Your task to perform on an android device: move a message to another label in the gmail app Image 0: 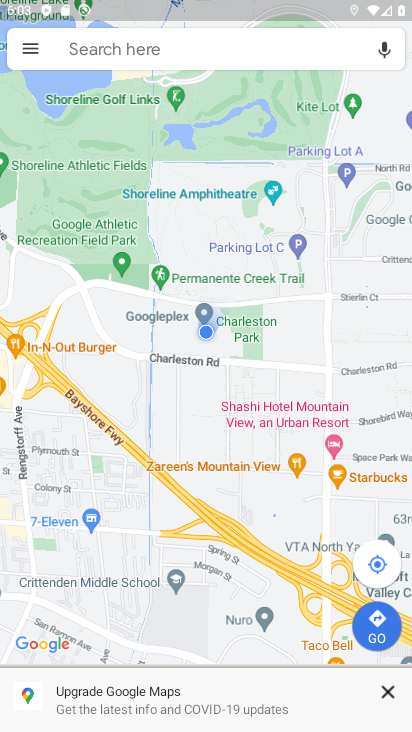
Step 0: press home button
Your task to perform on an android device: move a message to another label in the gmail app Image 1: 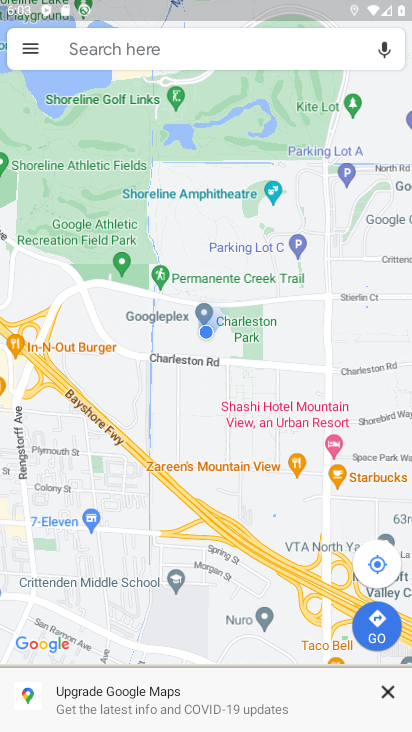
Step 1: press home button
Your task to perform on an android device: move a message to another label in the gmail app Image 2: 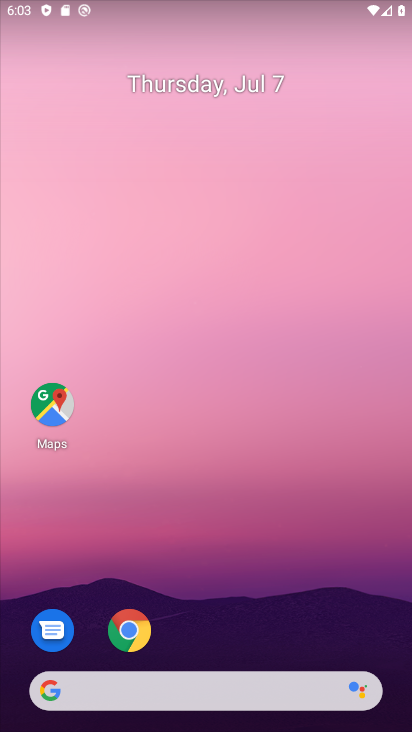
Step 2: drag from (196, 626) to (196, 150)
Your task to perform on an android device: move a message to another label in the gmail app Image 3: 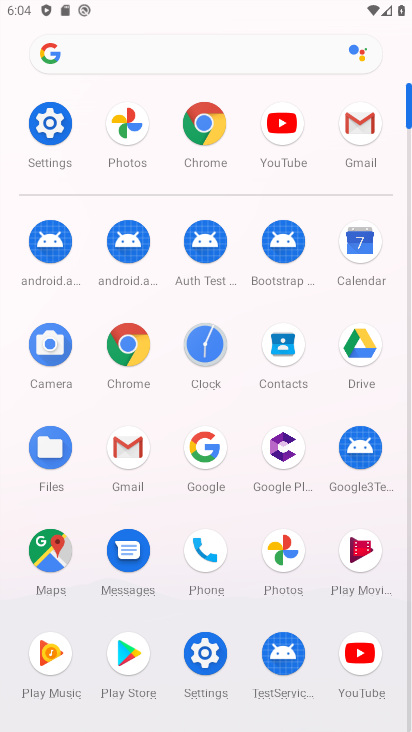
Step 3: click (366, 129)
Your task to perform on an android device: move a message to another label in the gmail app Image 4: 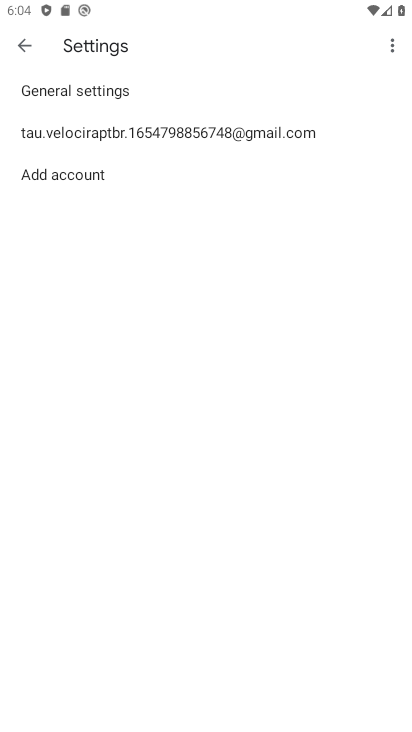
Step 4: click (156, 129)
Your task to perform on an android device: move a message to another label in the gmail app Image 5: 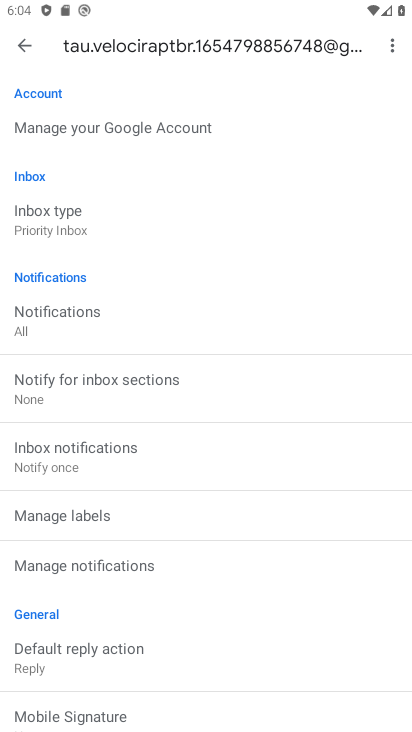
Step 5: press back button
Your task to perform on an android device: move a message to another label in the gmail app Image 6: 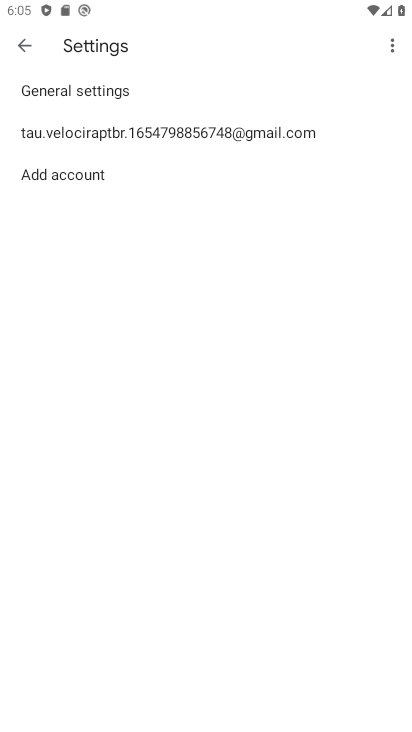
Step 6: press back button
Your task to perform on an android device: move a message to another label in the gmail app Image 7: 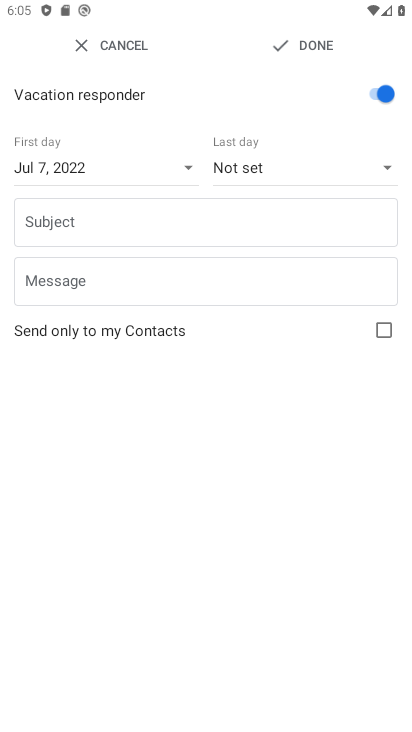
Step 7: press back button
Your task to perform on an android device: move a message to another label in the gmail app Image 8: 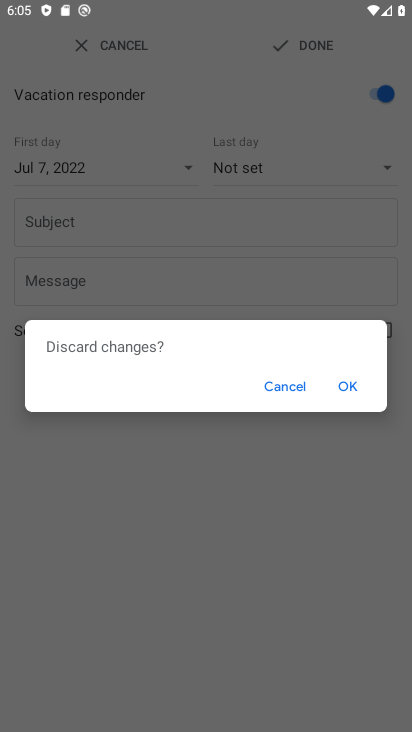
Step 8: click (348, 391)
Your task to perform on an android device: move a message to another label in the gmail app Image 9: 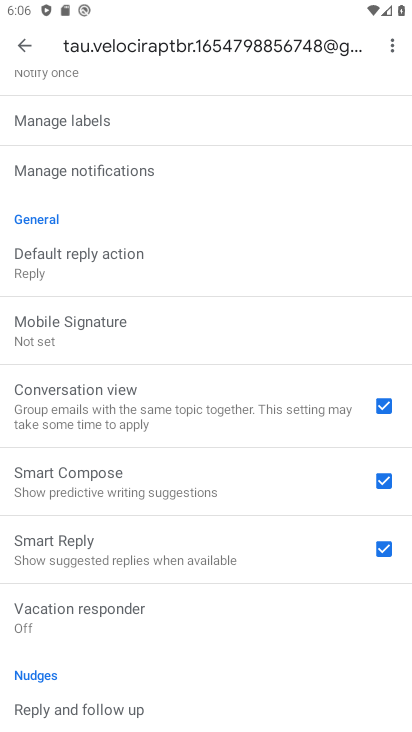
Step 9: click (26, 48)
Your task to perform on an android device: move a message to another label in the gmail app Image 10: 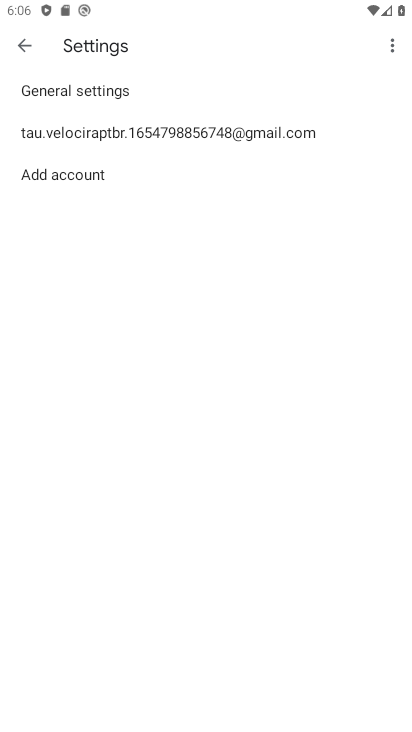
Step 10: click (26, 48)
Your task to perform on an android device: move a message to another label in the gmail app Image 11: 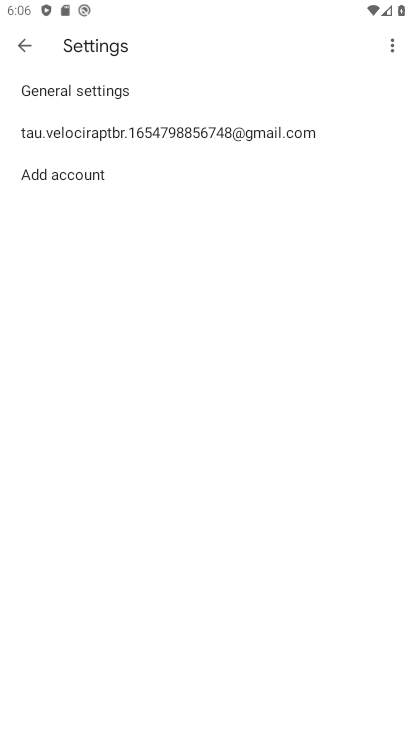
Step 11: click (26, 48)
Your task to perform on an android device: move a message to another label in the gmail app Image 12: 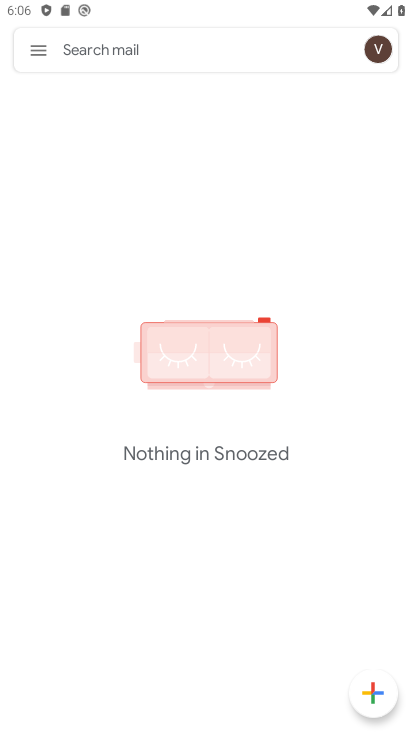
Step 12: task complete